Your task to perform on an android device: toggle javascript in the chrome app Image 0: 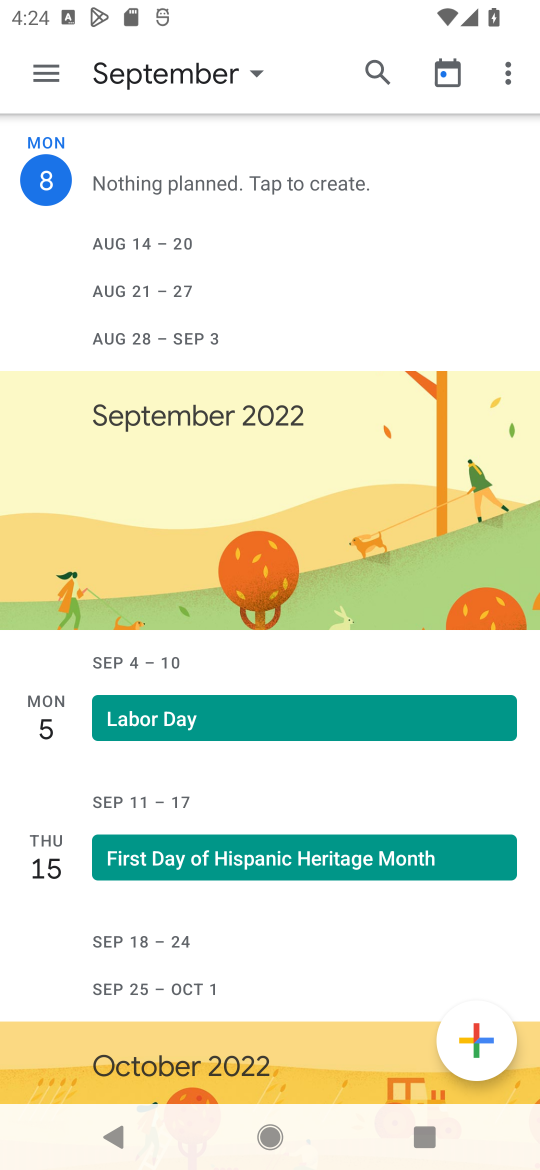
Step 0: click (273, 1141)
Your task to perform on an android device: toggle javascript in the chrome app Image 1: 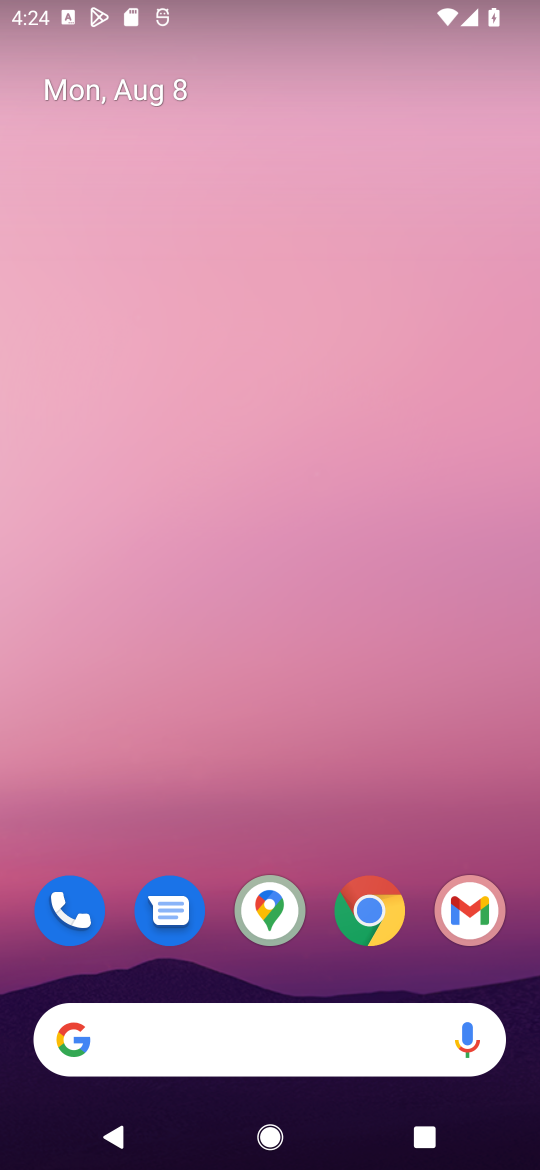
Step 1: click (355, 925)
Your task to perform on an android device: toggle javascript in the chrome app Image 2: 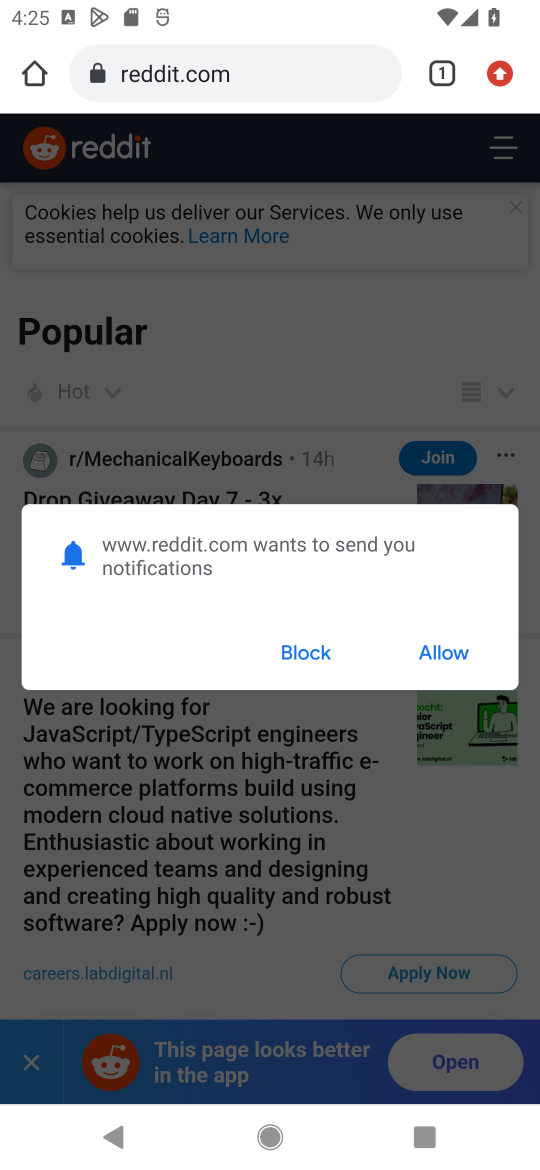
Step 2: click (308, 646)
Your task to perform on an android device: toggle javascript in the chrome app Image 3: 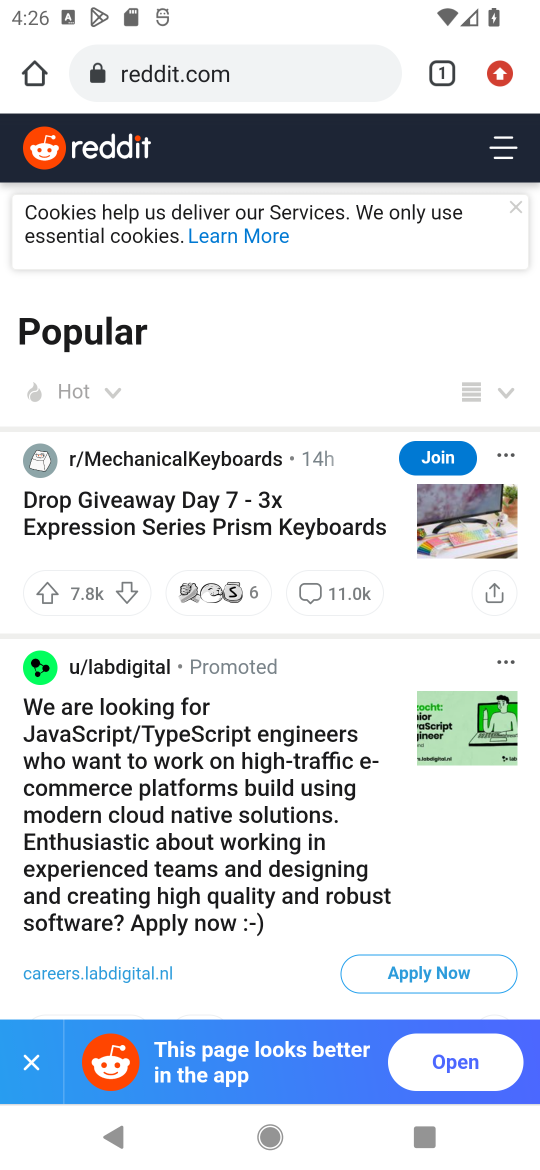
Step 3: click (498, 74)
Your task to perform on an android device: toggle javascript in the chrome app Image 4: 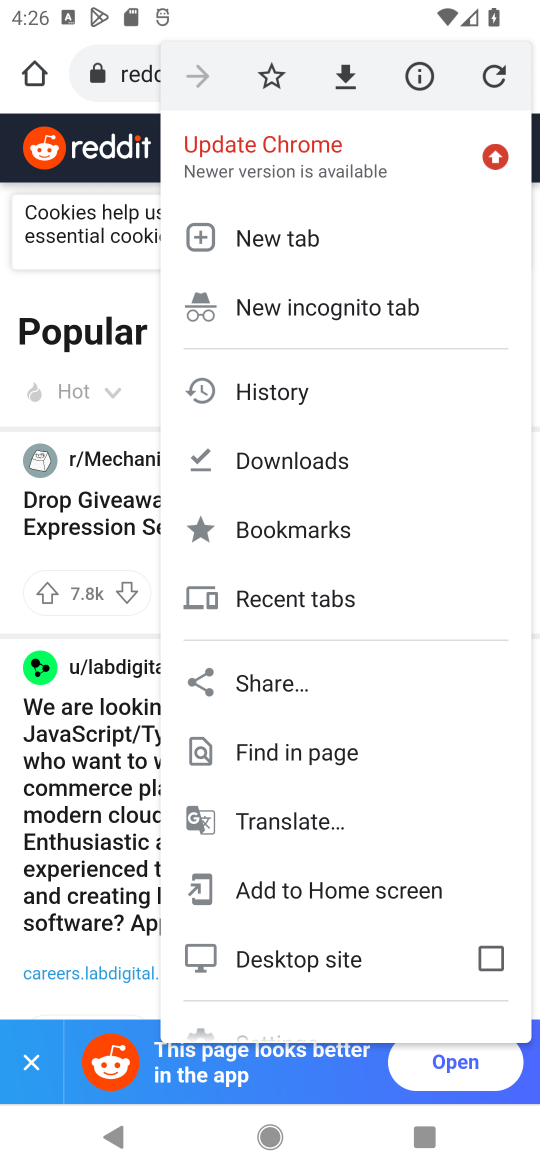
Step 4: drag from (336, 853) to (340, 386)
Your task to perform on an android device: toggle javascript in the chrome app Image 5: 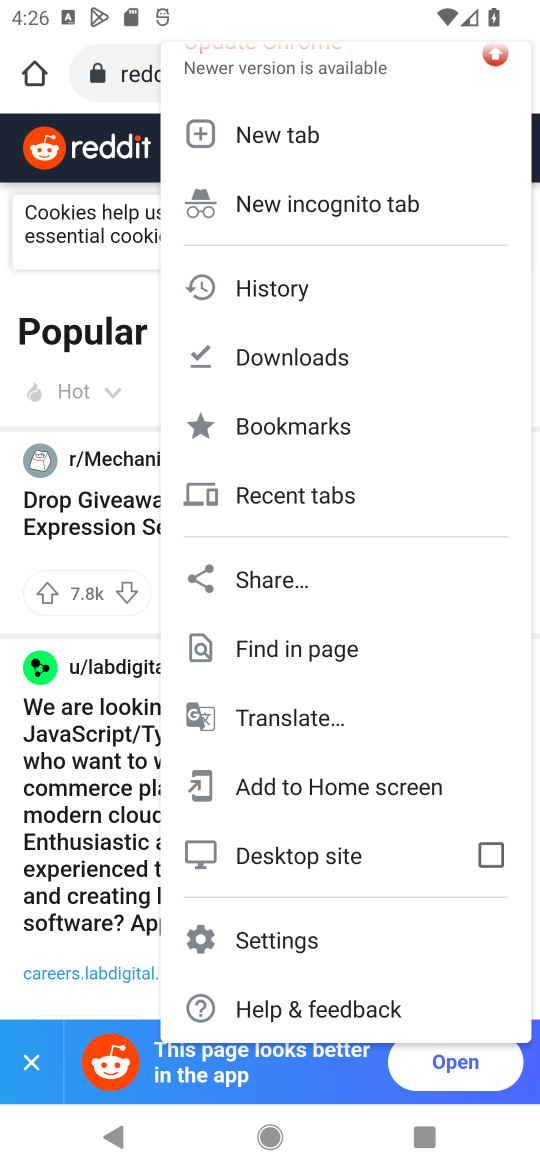
Step 5: click (296, 934)
Your task to perform on an android device: toggle javascript in the chrome app Image 6: 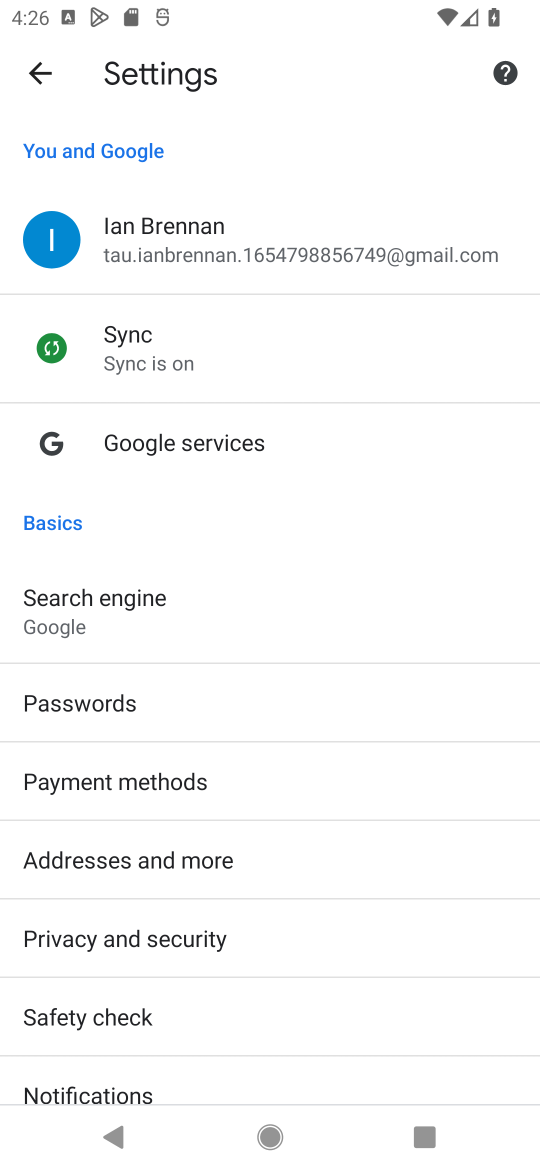
Step 6: drag from (404, 946) to (341, 413)
Your task to perform on an android device: toggle javascript in the chrome app Image 7: 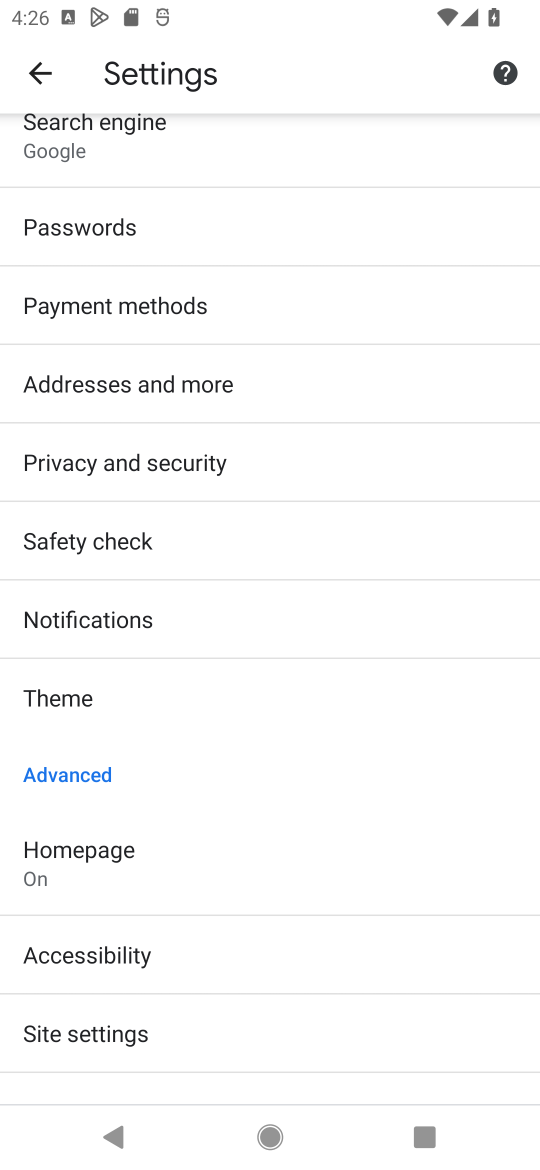
Step 7: drag from (356, 758) to (323, 441)
Your task to perform on an android device: toggle javascript in the chrome app Image 8: 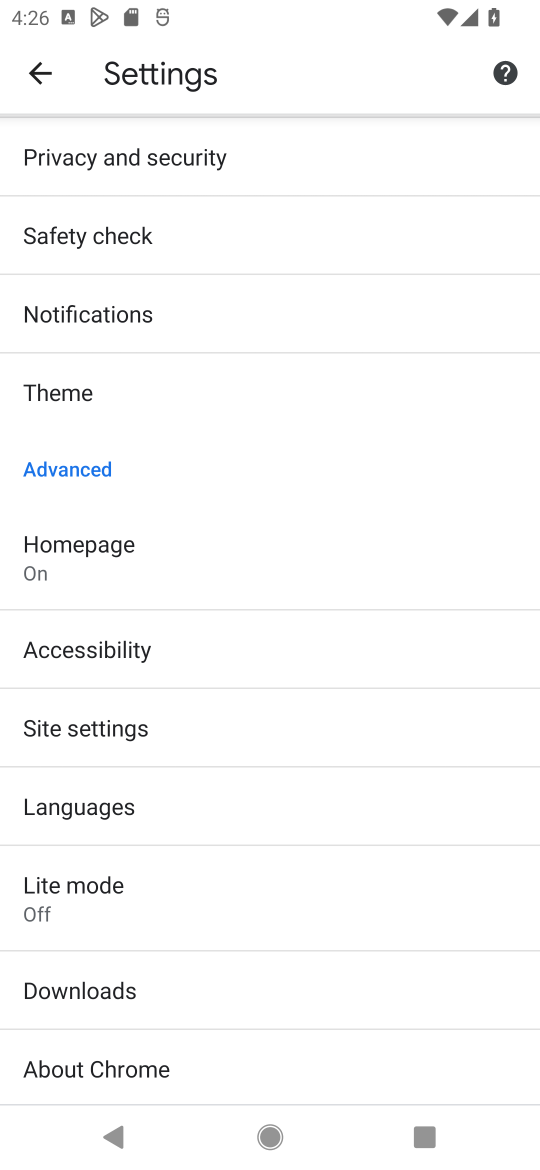
Step 8: click (142, 739)
Your task to perform on an android device: toggle javascript in the chrome app Image 9: 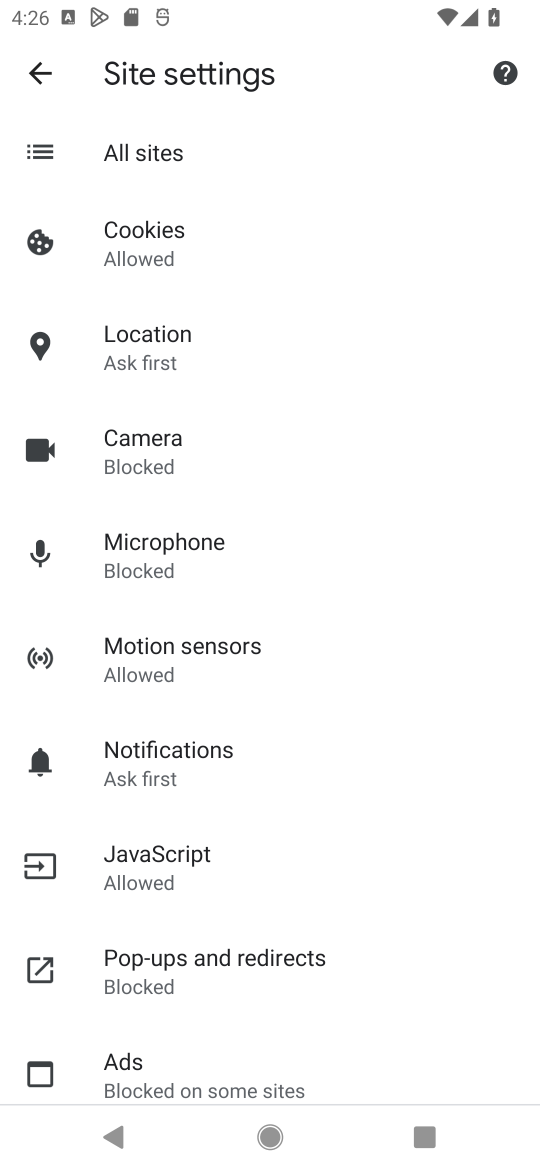
Step 9: click (180, 862)
Your task to perform on an android device: toggle javascript in the chrome app Image 10: 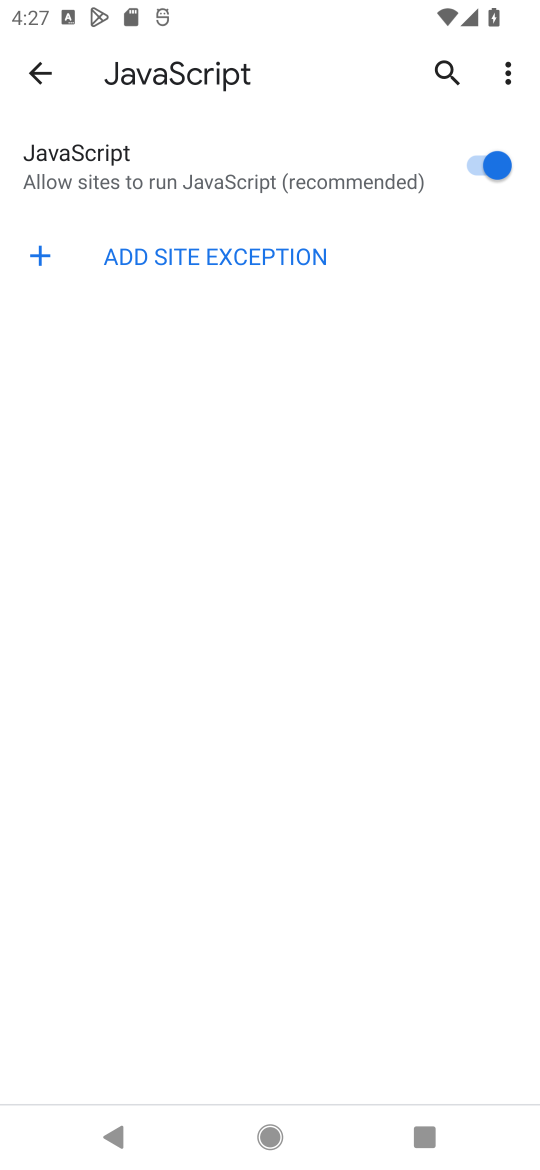
Step 10: click (495, 172)
Your task to perform on an android device: toggle javascript in the chrome app Image 11: 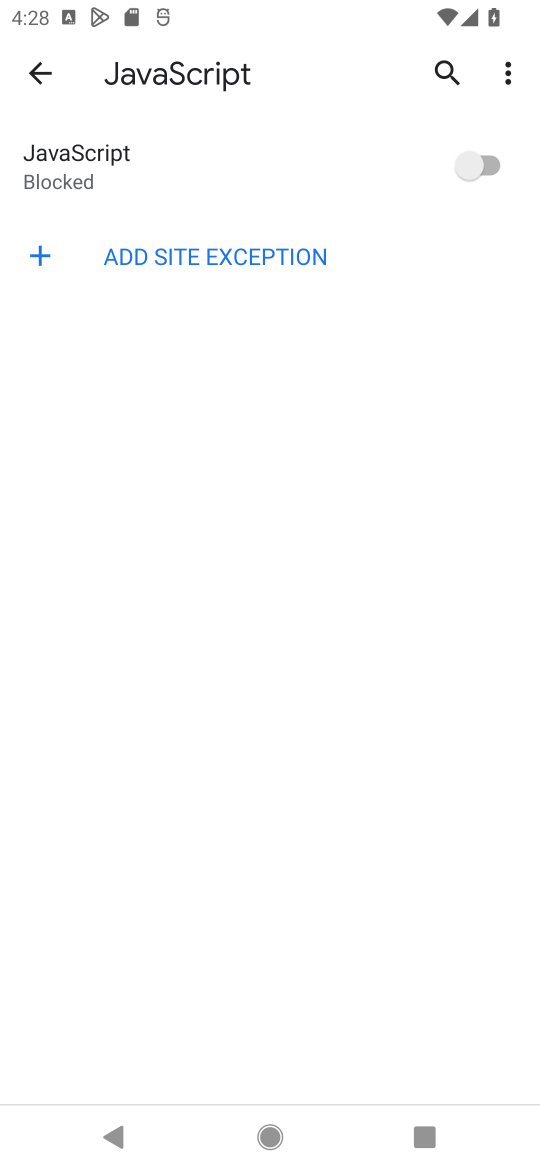
Step 11: task complete